Your task to perform on an android device: manage bookmarks in the chrome app Image 0: 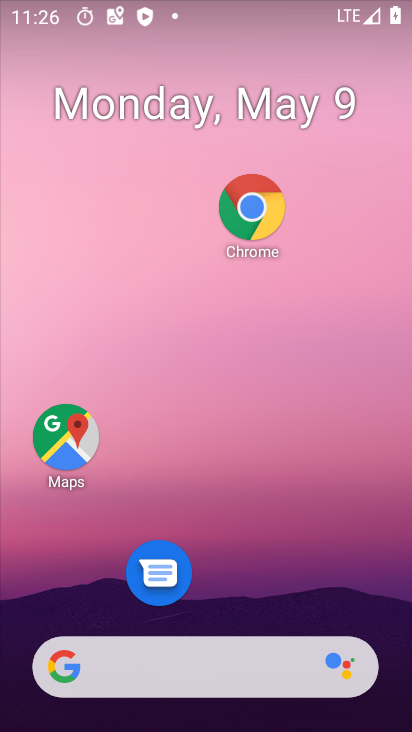
Step 0: drag from (287, 602) to (337, 157)
Your task to perform on an android device: manage bookmarks in the chrome app Image 1: 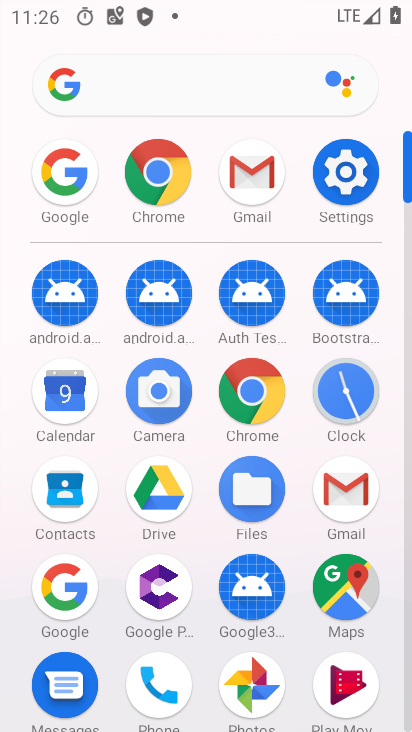
Step 1: click (158, 183)
Your task to perform on an android device: manage bookmarks in the chrome app Image 2: 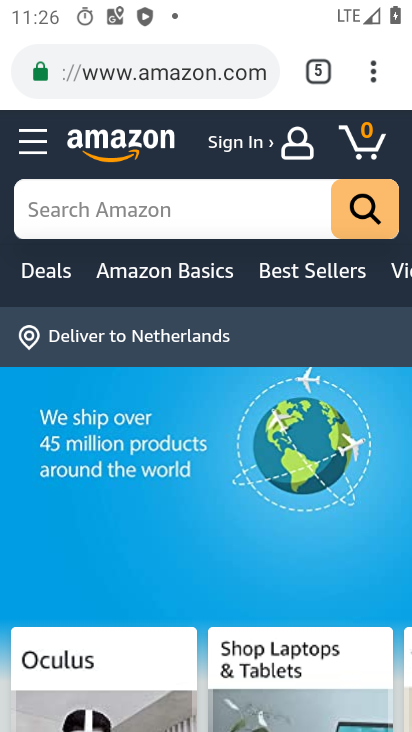
Step 2: click (375, 74)
Your task to perform on an android device: manage bookmarks in the chrome app Image 3: 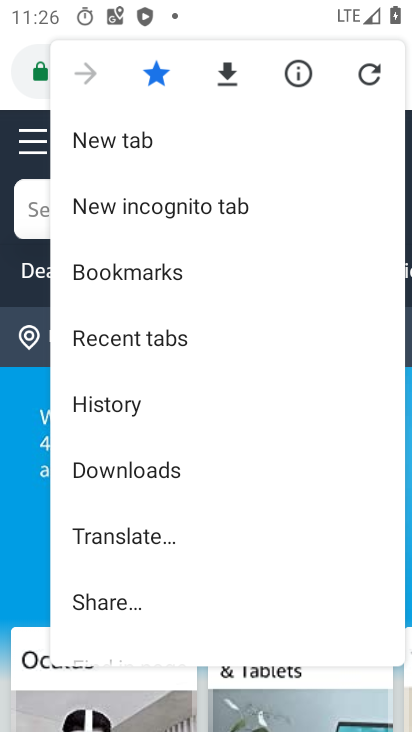
Step 3: drag from (286, 474) to (270, 340)
Your task to perform on an android device: manage bookmarks in the chrome app Image 4: 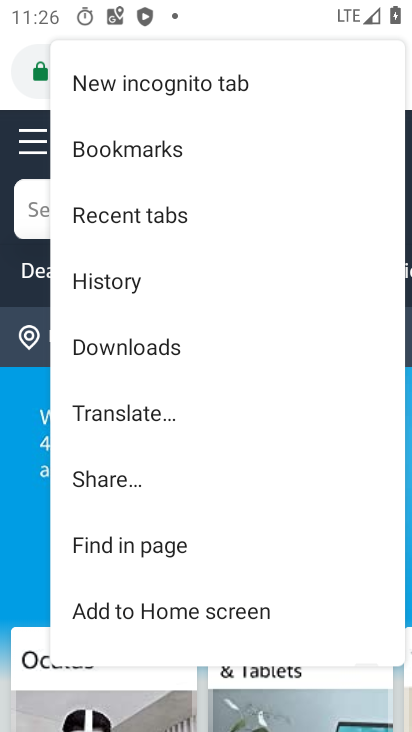
Step 4: click (221, 140)
Your task to perform on an android device: manage bookmarks in the chrome app Image 5: 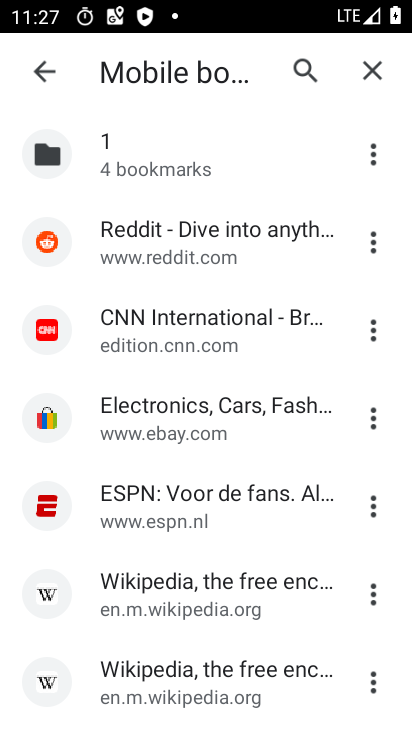
Step 5: task complete